Your task to perform on an android device: Search for seafood restaurants on Google Maps Image 0: 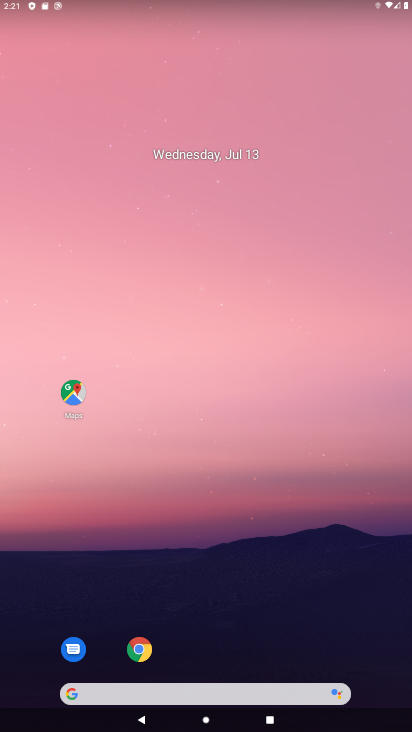
Step 0: click (73, 396)
Your task to perform on an android device: Search for seafood restaurants on Google Maps Image 1: 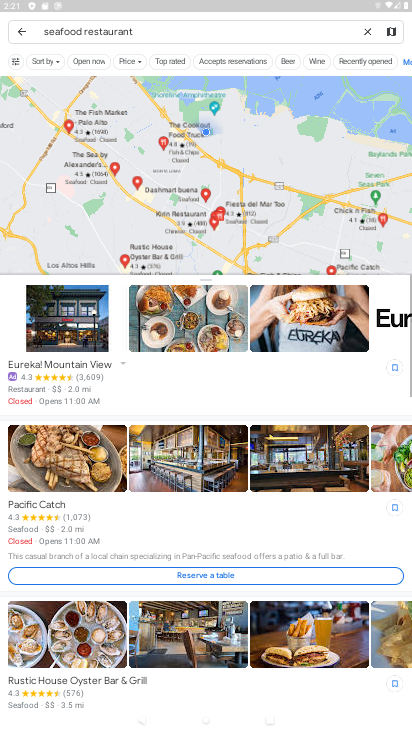
Step 1: click (368, 25)
Your task to perform on an android device: Search for seafood restaurants on Google Maps Image 2: 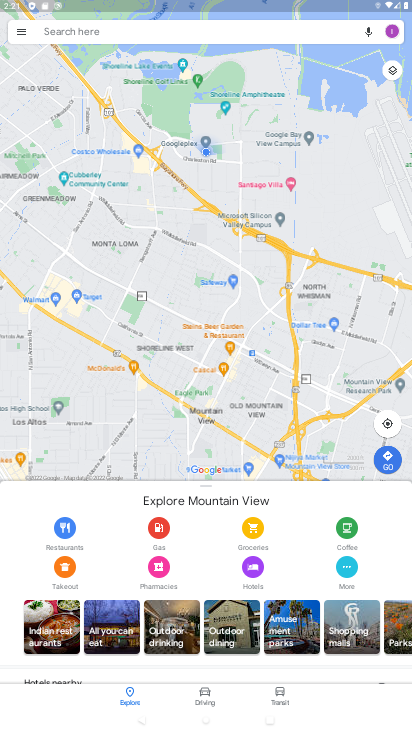
Step 2: click (179, 32)
Your task to perform on an android device: Search for seafood restaurants on Google Maps Image 3: 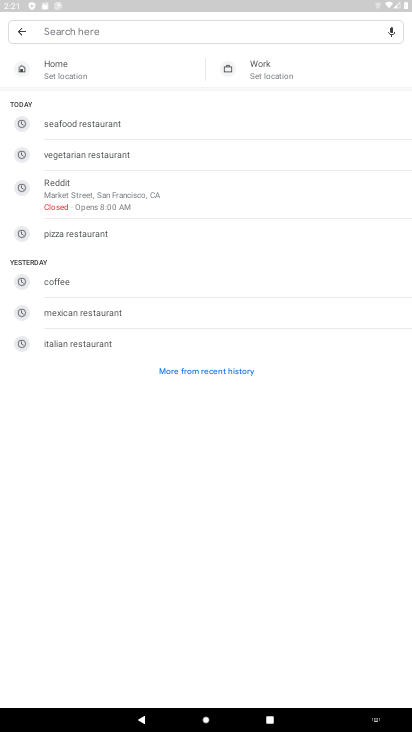
Step 3: click (118, 119)
Your task to perform on an android device: Search for seafood restaurants on Google Maps Image 4: 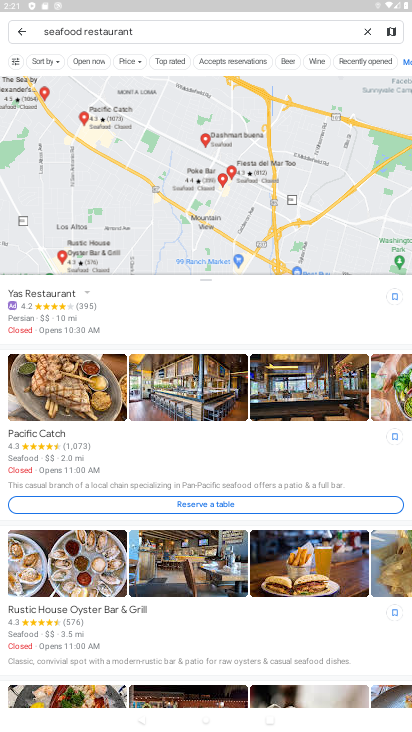
Step 4: task complete